Your task to perform on an android device: turn on notifications settings in the gmail app Image 0: 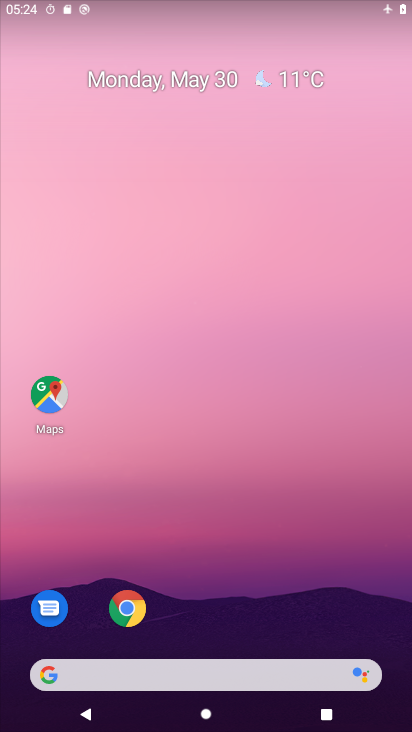
Step 0: drag from (305, 289) to (168, 23)
Your task to perform on an android device: turn on notifications settings in the gmail app Image 1: 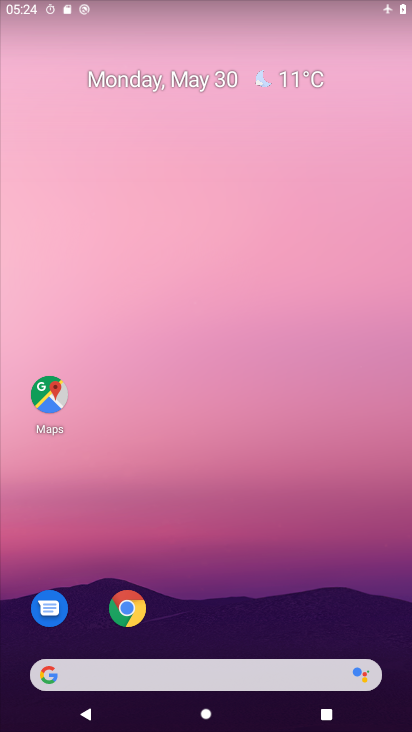
Step 1: drag from (260, 493) to (184, 1)
Your task to perform on an android device: turn on notifications settings in the gmail app Image 2: 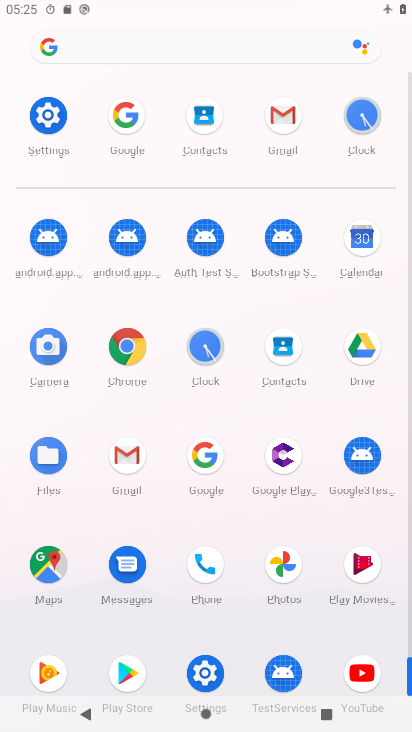
Step 2: click (52, 120)
Your task to perform on an android device: turn on notifications settings in the gmail app Image 3: 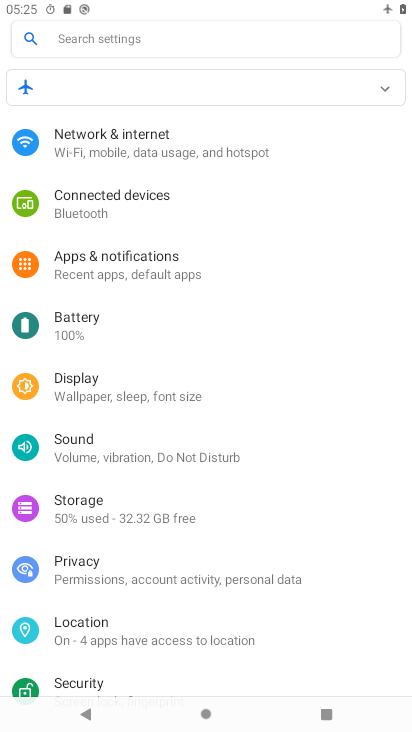
Step 3: click (152, 273)
Your task to perform on an android device: turn on notifications settings in the gmail app Image 4: 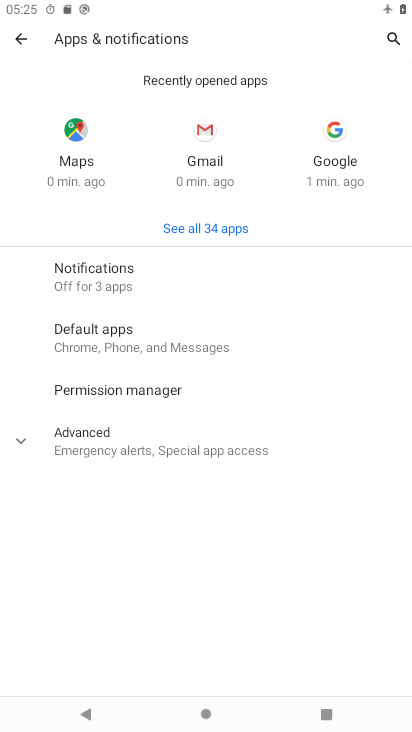
Step 4: click (252, 267)
Your task to perform on an android device: turn on notifications settings in the gmail app Image 5: 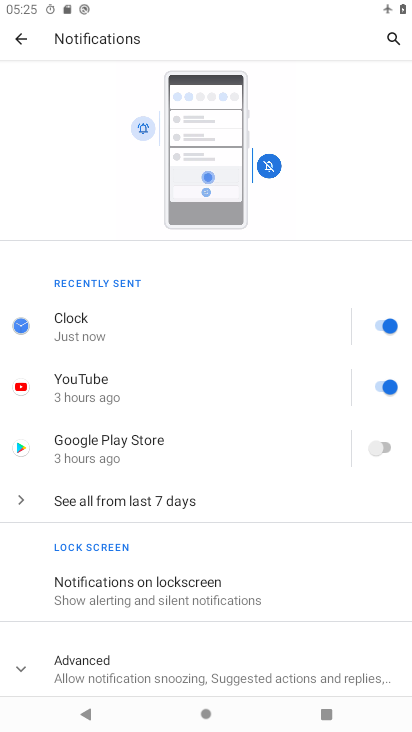
Step 5: click (384, 441)
Your task to perform on an android device: turn on notifications settings in the gmail app Image 6: 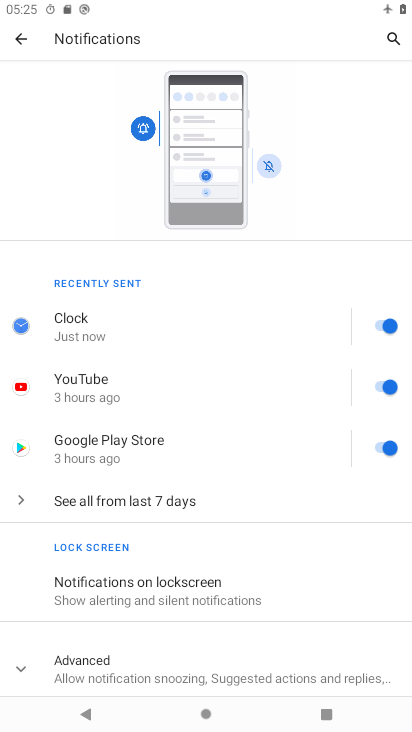
Step 6: task complete